Your task to perform on an android device: Open Android settings Image 0: 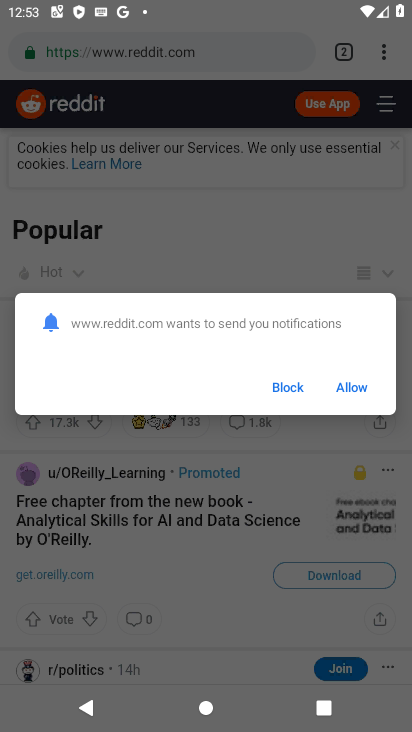
Step 0: press home button
Your task to perform on an android device: Open Android settings Image 1: 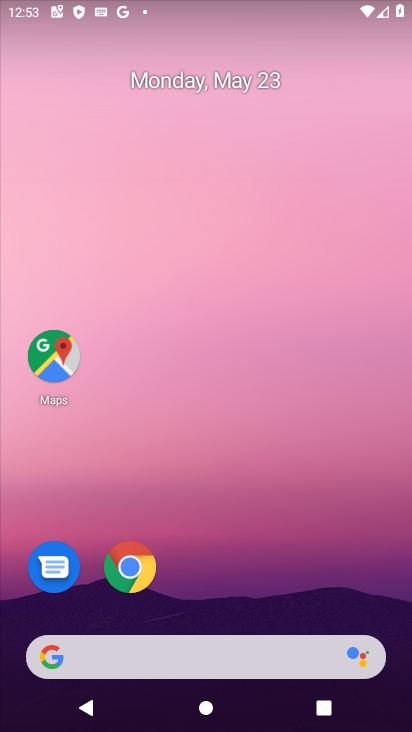
Step 1: drag from (219, 607) to (258, 122)
Your task to perform on an android device: Open Android settings Image 2: 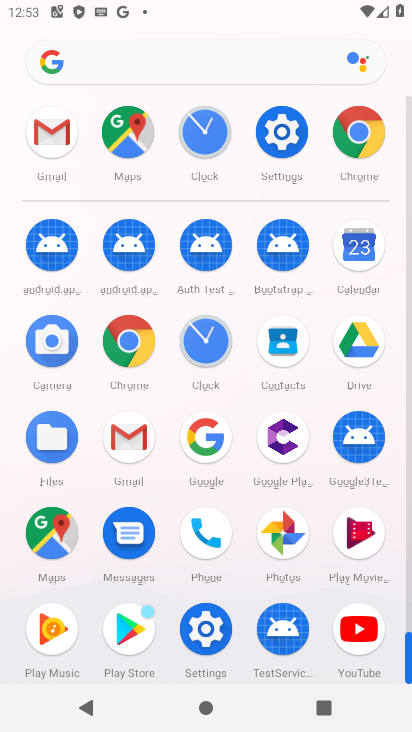
Step 2: click (294, 136)
Your task to perform on an android device: Open Android settings Image 3: 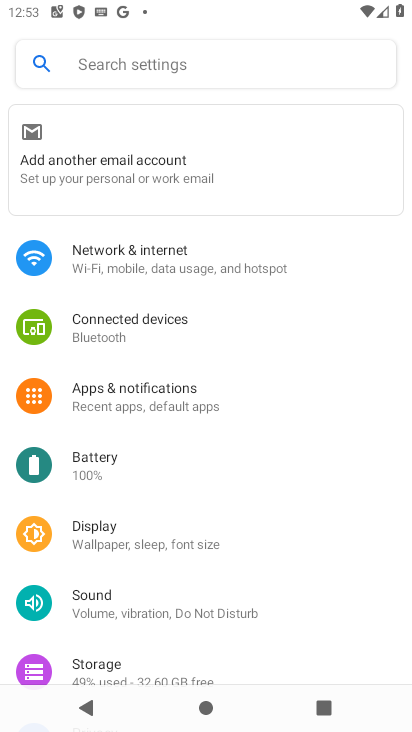
Step 3: task complete